Your task to perform on an android device: toggle pop-ups in chrome Image 0: 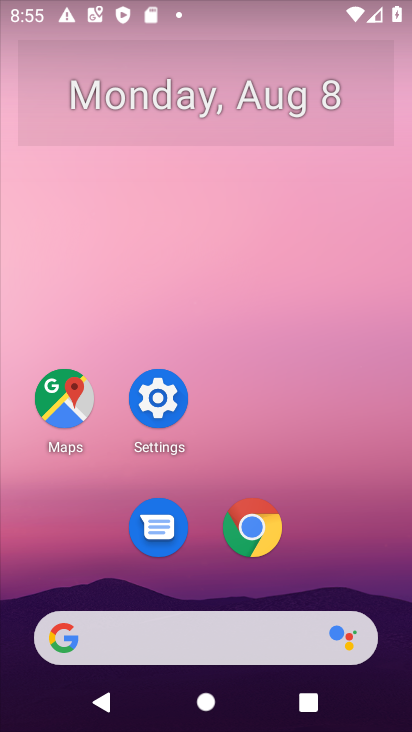
Step 0: click (247, 542)
Your task to perform on an android device: toggle pop-ups in chrome Image 1: 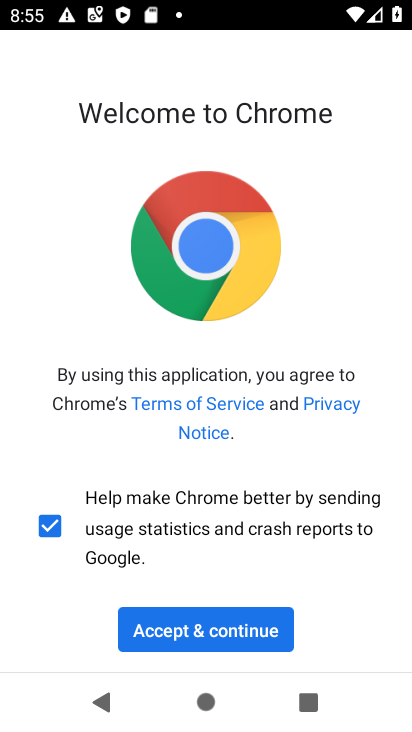
Step 1: click (217, 614)
Your task to perform on an android device: toggle pop-ups in chrome Image 2: 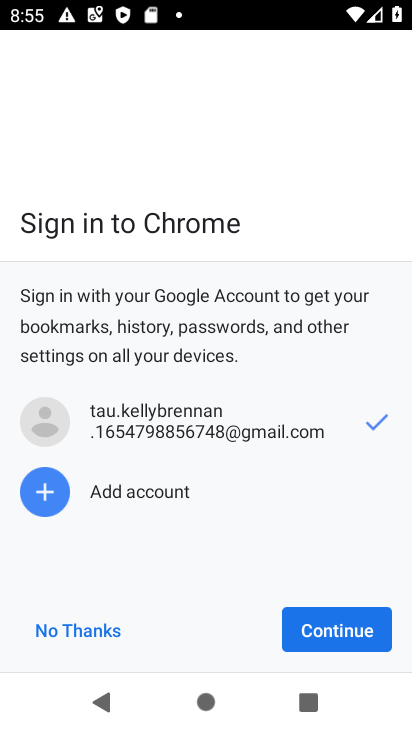
Step 2: click (342, 629)
Your task to perform on an android device: toggle pop-ups in chrome Image 3: 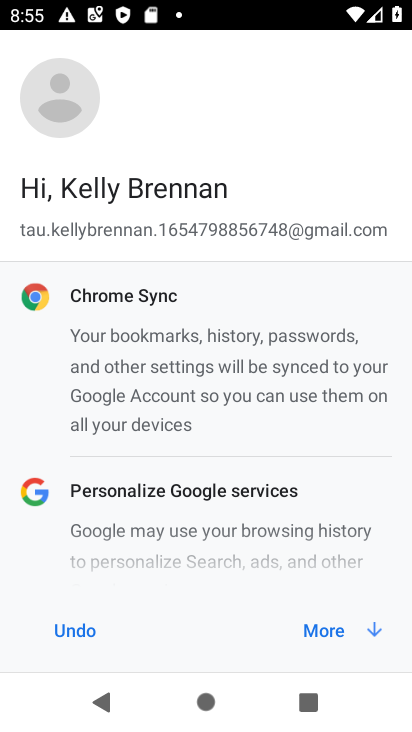
Step 3: click (325, 625)
Your task to perform on an android device: toggle pop-ups in chrome Image 4: 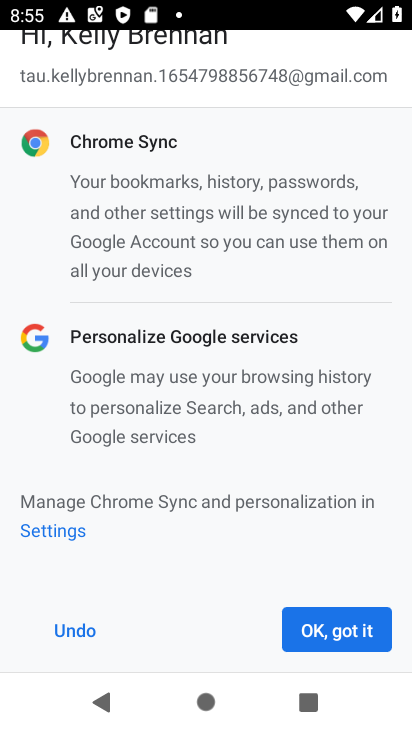
Step 4: click (329, 626)
Your task to perform on an android device: toggle pop-ups in chrome Image 5: 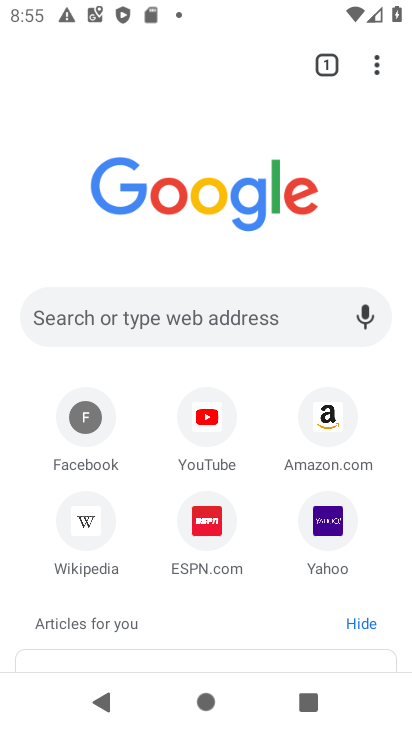
Step 5: task complete